Your task to perform on an android device: turn on bluetooth scan Image 0: 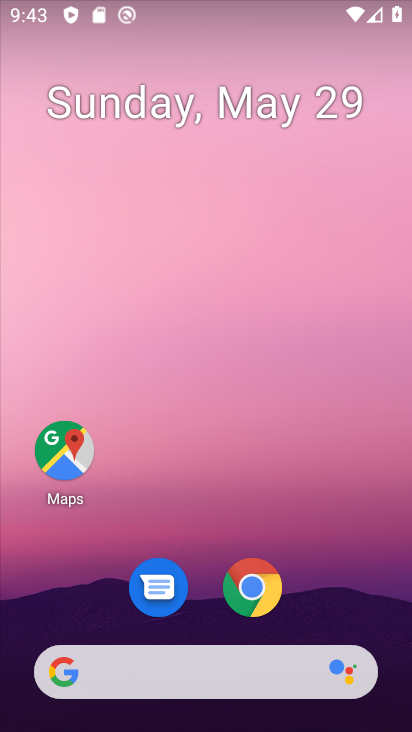
Step 0: drag from (384, 631) to (296, 204)
Your task to perform on an android device: turn on bluetooth scan Image 1: 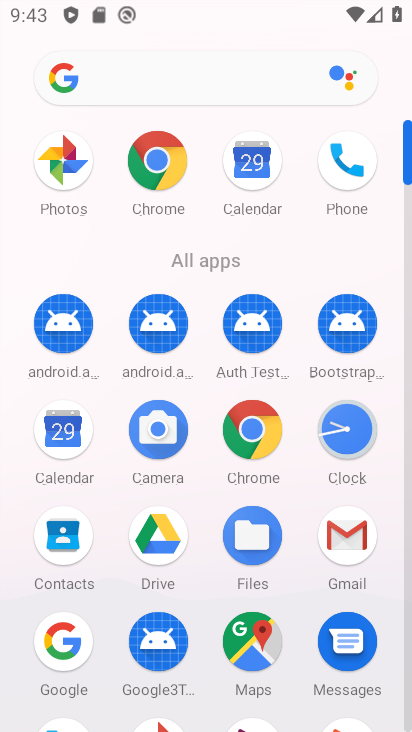
Step 1: click (406, 633)
Your task to perform on an android device: turn on bluetooth scan Image 2: 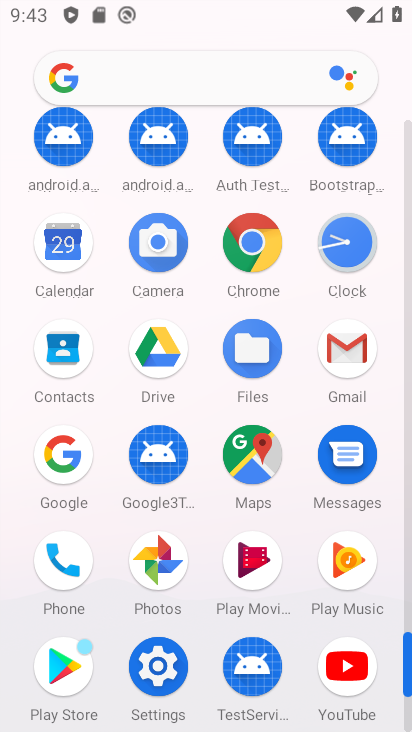
Step 2: click (138, 677)
Your task to perform on an android device: turn on bluetooth scan Image 3: 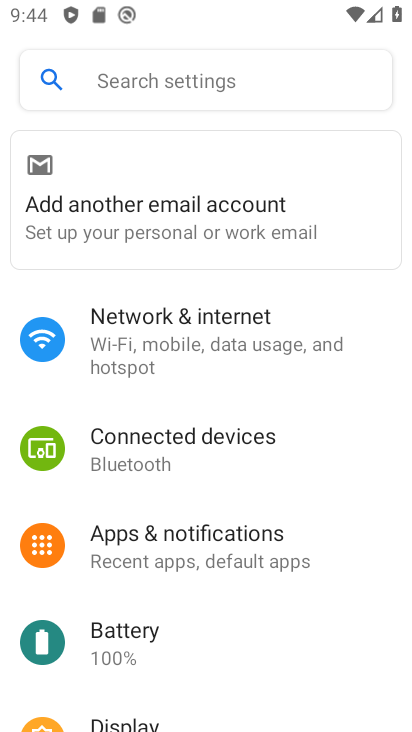
Step 3: drag from (245, 659) to (172, 306)
Your task to perform on an android device: turn on bluetooth scan Image 4: 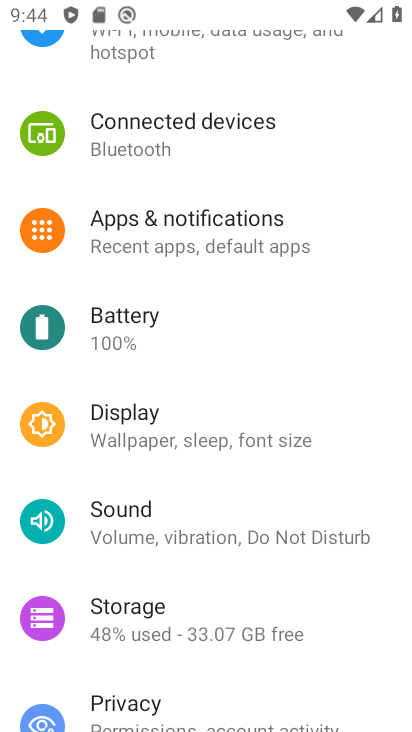
Step 4: drag from (234, 643) to (156, 147)
Your task to perform on an android device: turn on bluetooth scan Image 5: 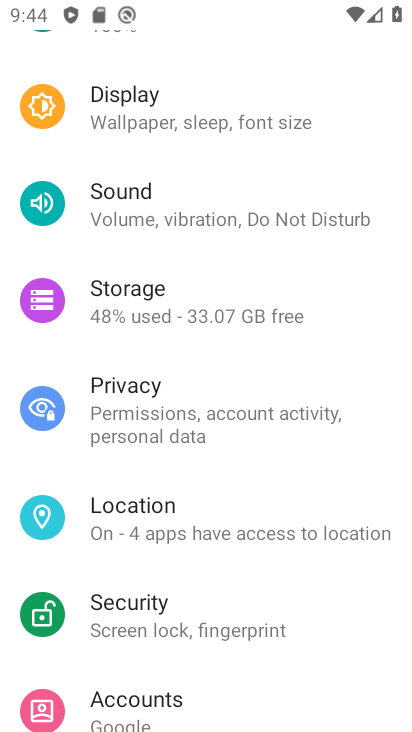
Step 5: click (227, 529)
Your task to perform on an android device: turn on bluetooth scan Image 6: 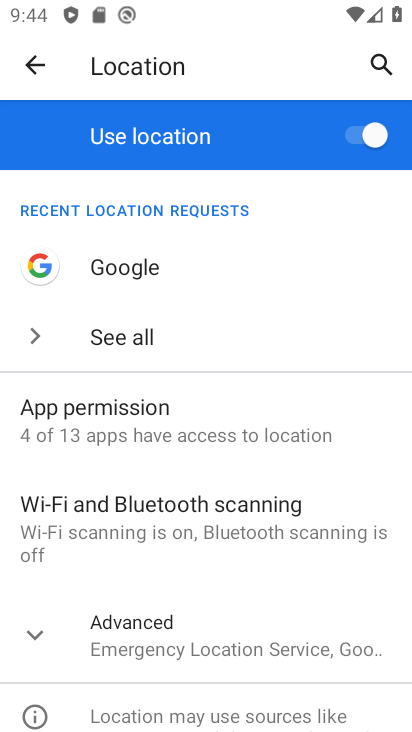
Step 6: click (273, 525)
Your task to perform on an android device: turn on bluetooth scan Image 7: 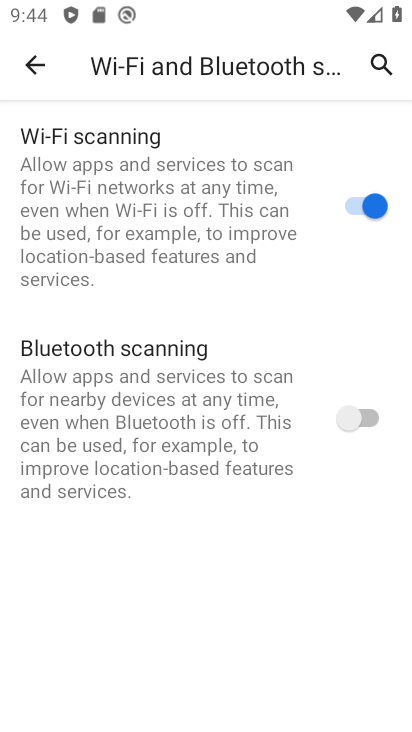
Step 7: click (354, 440)
Your task to perform on an android device: turn on bluetooth scan Image 8: 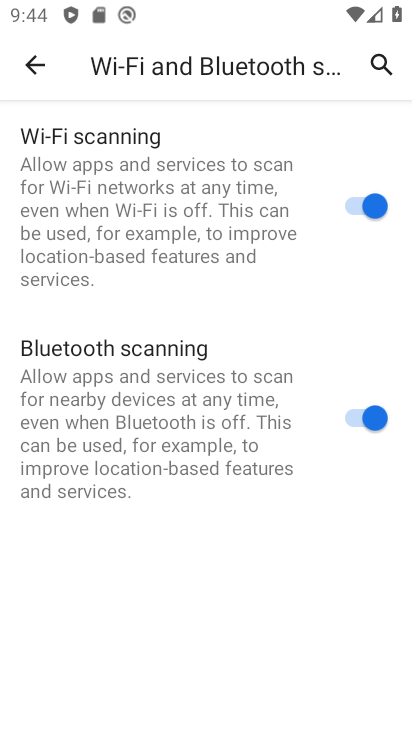
Step 8: task complete